Your task to perform on an android device: turn on wifi Image 0: 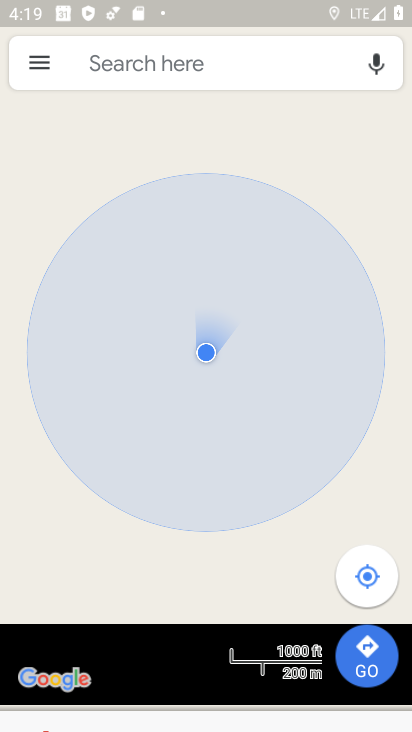
Step 0: press home button
Your task to perform on an android device: turn on wifi Image 1: 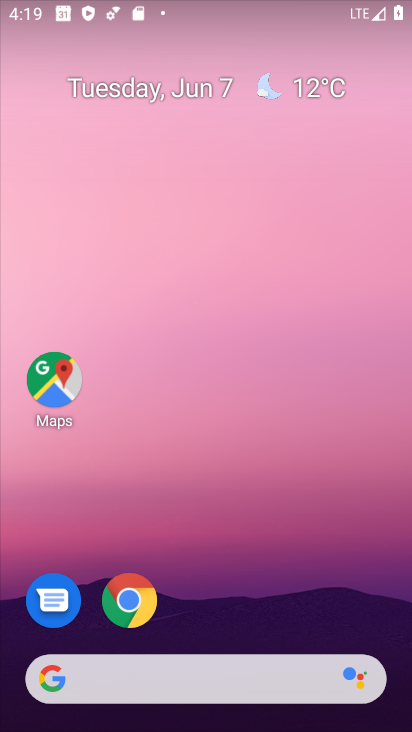
Step 1: drag from (194, 649) to (231, 218)
Your task to perform on an android device: turn on wifi Image 2: 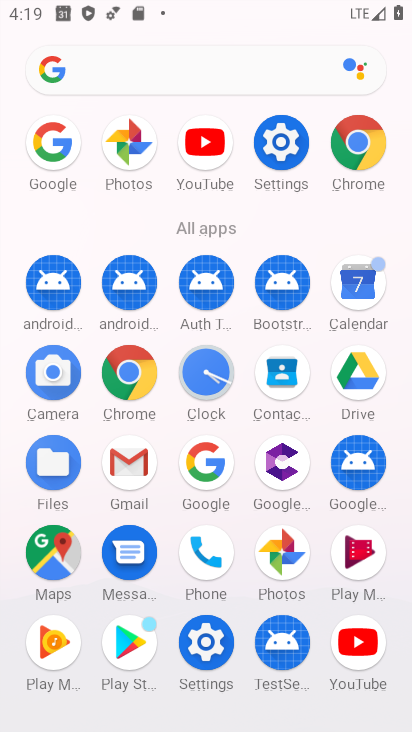
Step 2: click (204, 642)
Your task to perform on an android device: turn on wifi Image 3: 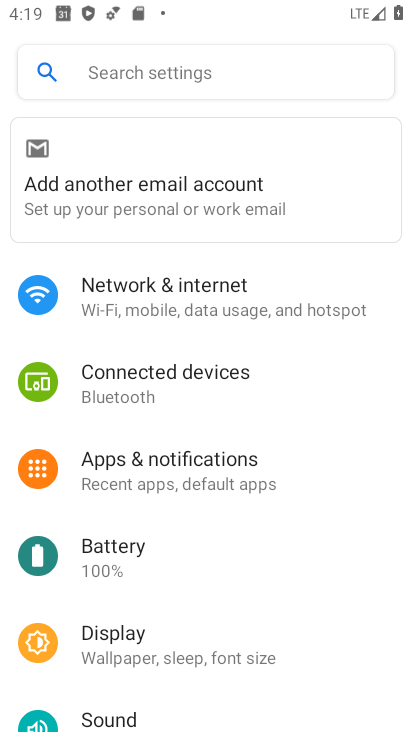
Step 3: click (179, 287)
Your task to perform on an android device: turn on wifi Image 4: 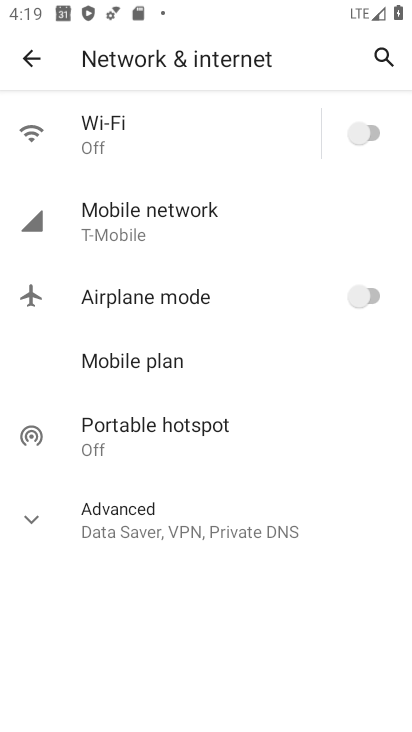
Step 4: click (359, 127)
Your task to perform on an android device: turn on wifi Image 5: 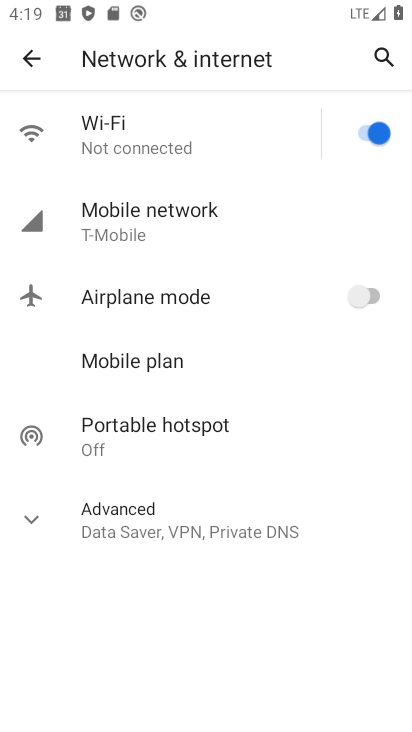
Step 5: task complete